Your task to perform on an android device: turn notification dots on Image 0: 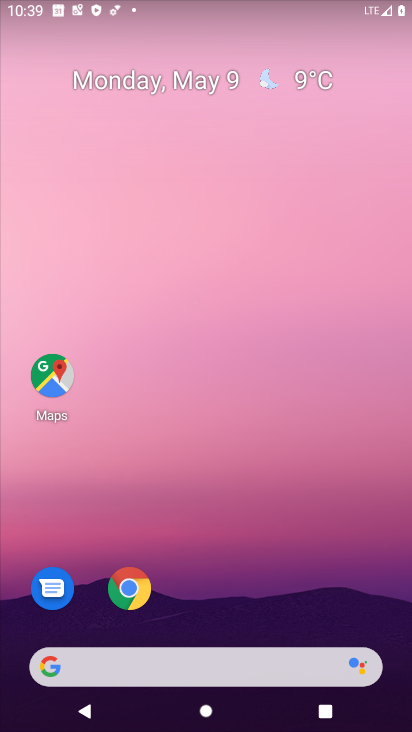
Step 0: press home button
Your task to perform on an android device: turn notification dots on Image 1: 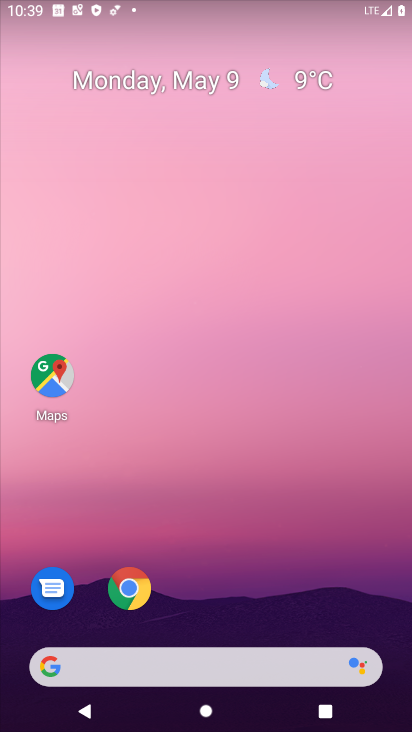
Step 1: drag from (157, 672) to (331, 42)
Your task to perform on an android device: turn notification dots on Image 2: 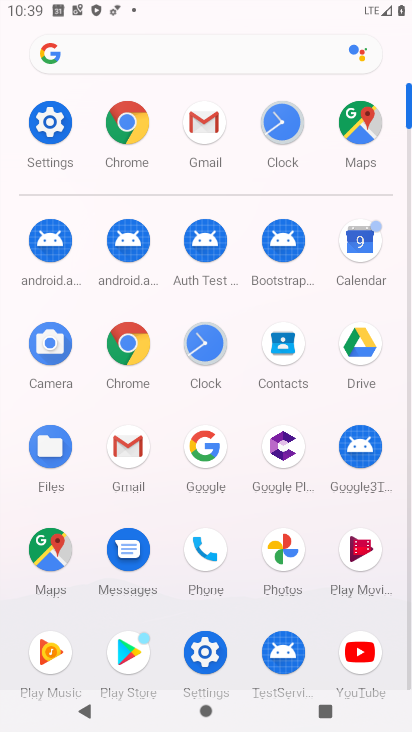
Step 2: click (49, 130)
Your task to perform on an android device: turn notification dots on Image 3: 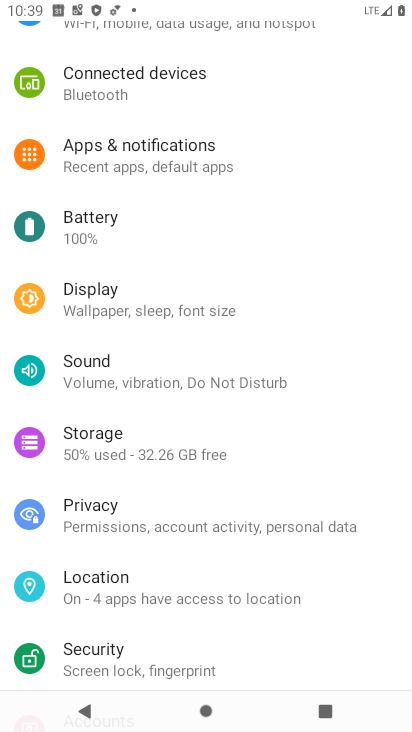
Step 3: click (155, 152)
Your task to perform on an android device: turn notification dots on Image 4: 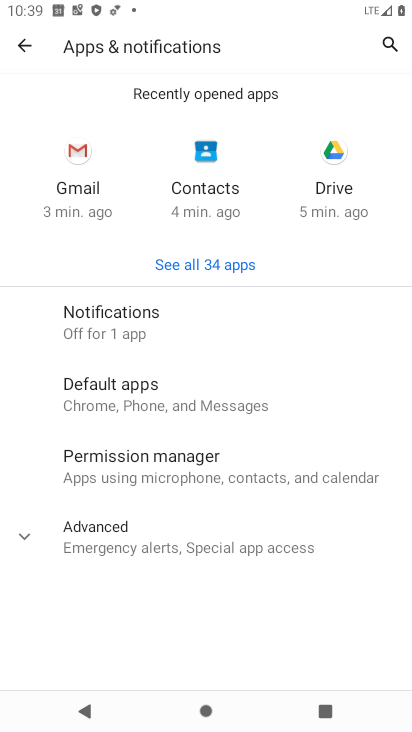
Step 4: click (99, 323)
Your task to perform on an android device: turn notification dots on Image 5: 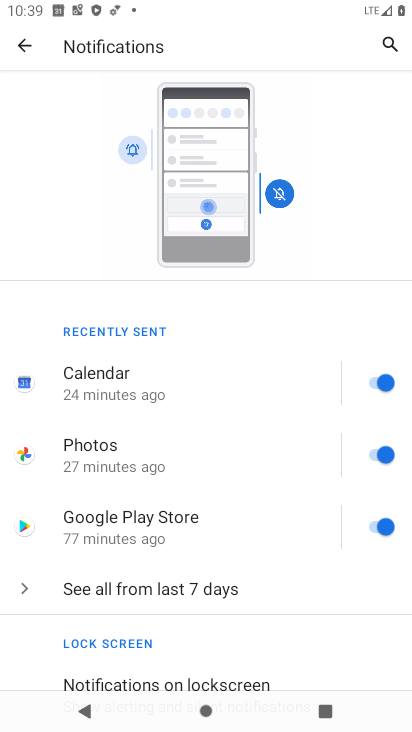
Step 5: drag from (189, 646) to (348, 162)
Your task to perform on an android device: turn notification dots on Image 6: 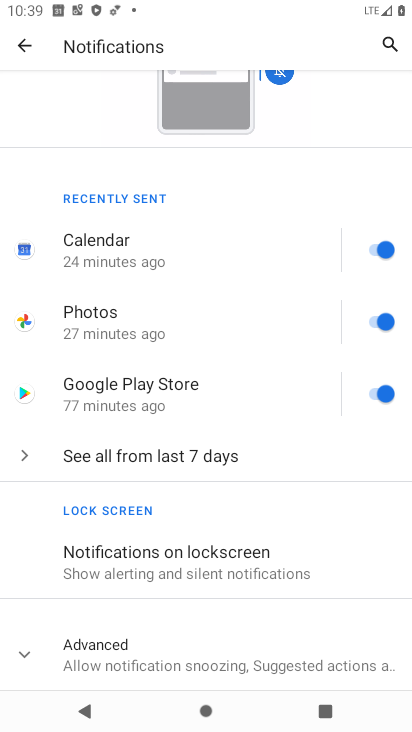
Step 6: click (147, 652)
Your task to perform on an android device: turn notification dots on Image 7: 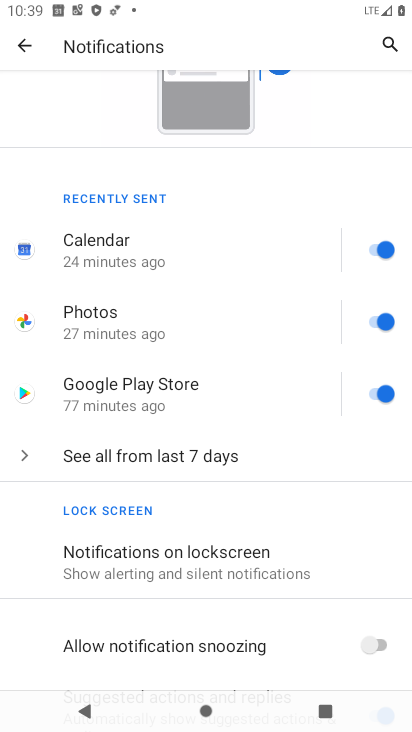
Step 7: click (86, 643)
Your task to perform on an android device: turn notification dots on Image 8: 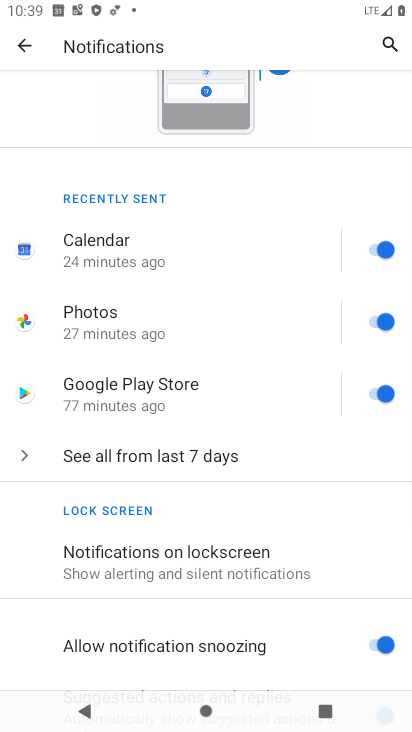
Step 8: drag from (207, 496) to (323, 174)
Your task to perform on an android device: turn notification dots on Image 9: 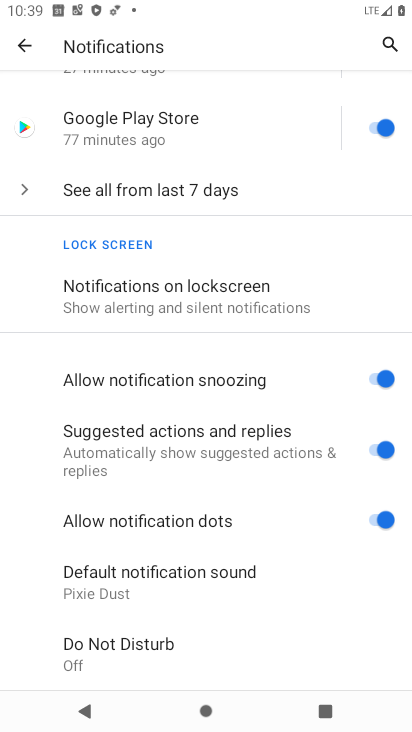
Step 9: drag from (267, 627) to (371, 190)
Your task to perform on an android device: turn notification dots on Image 10: 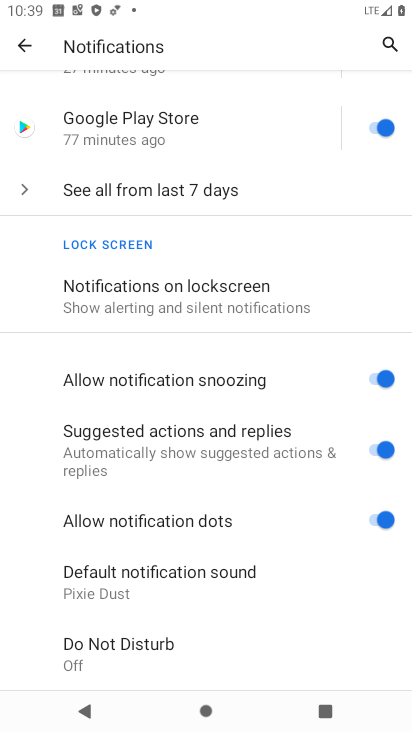
Step 10: click (373, 522)
Your task to perform on an android device: turn notification dots on Image 11: 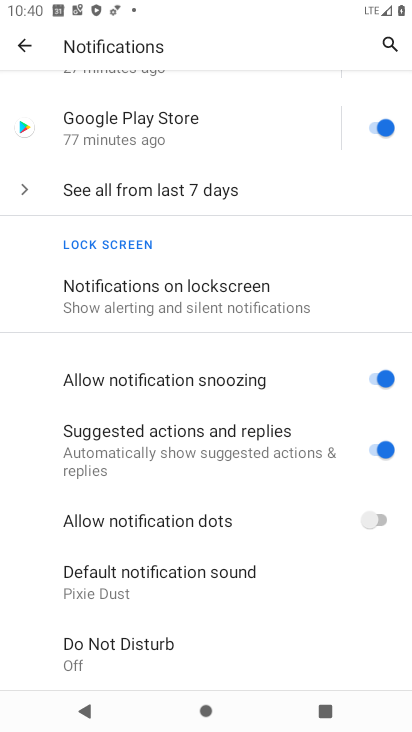
Step 11: task complete